Your task to perform on an android device: Turn off the flashlight Image 0: 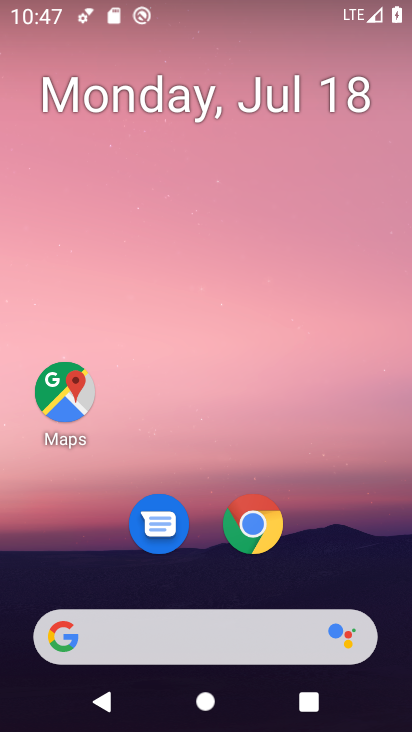
Step 0: drag from (319, 550) to (291, 41)
Your task to perform on an android device: Turn off the flashlight Image 1: 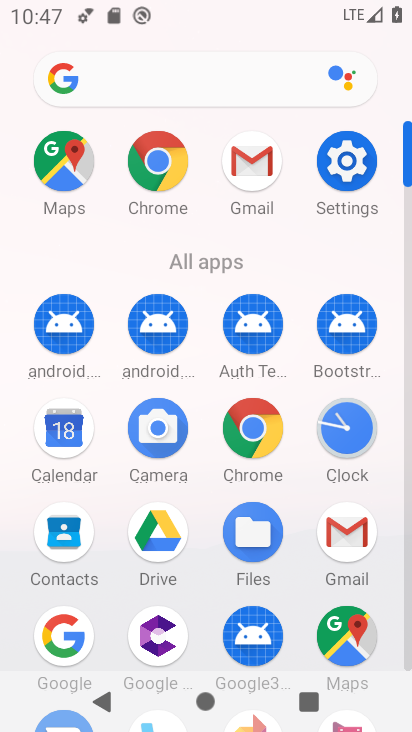
Step 1: click (332, 158)
Your task to perform on an android device: Turn off the flashlight Image 2: 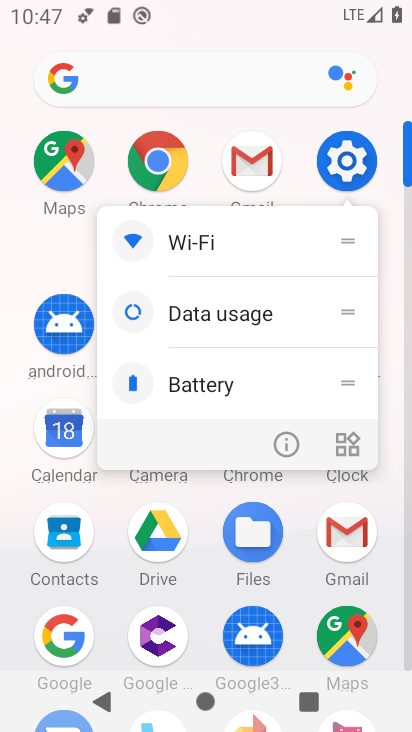
Step 2: click (248, 97)
Your task to perform on an android device: Turn off the flashlight Image 3: 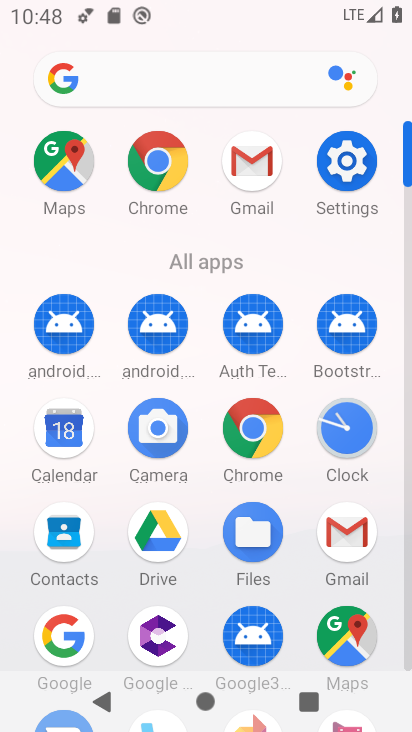
Step 3: click (226, 79)
Your task to perform on an android device: Turn off the flashlight Image 4: 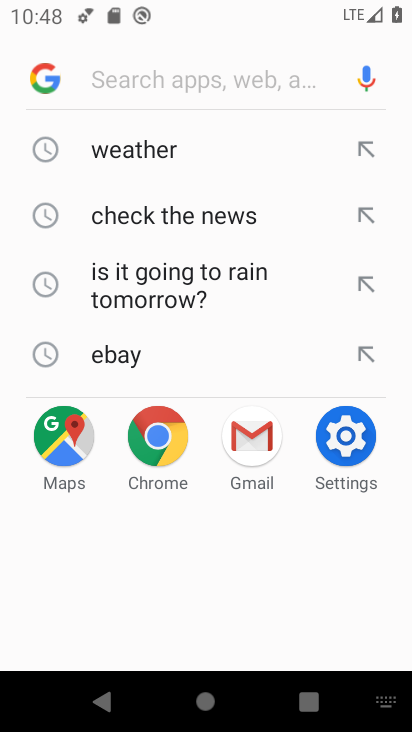
Step 4: press home button
Your task to perform on an android device: Turn off the flashlight Image 5: 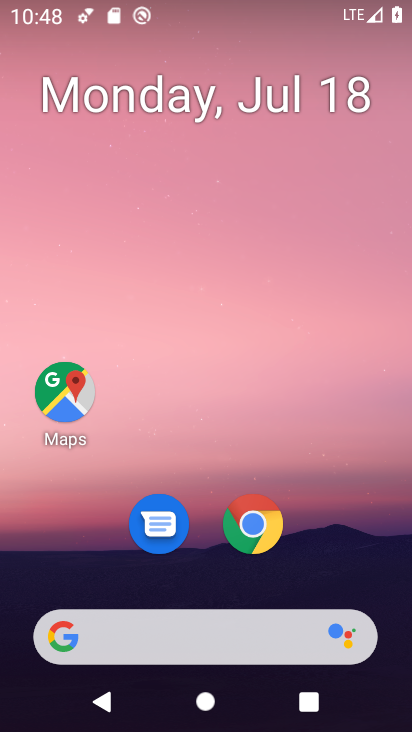
Step 5: drag from (290, 483) to (318, 64)
Your task to perform on an android device: Turn off the flashlight Image 6: 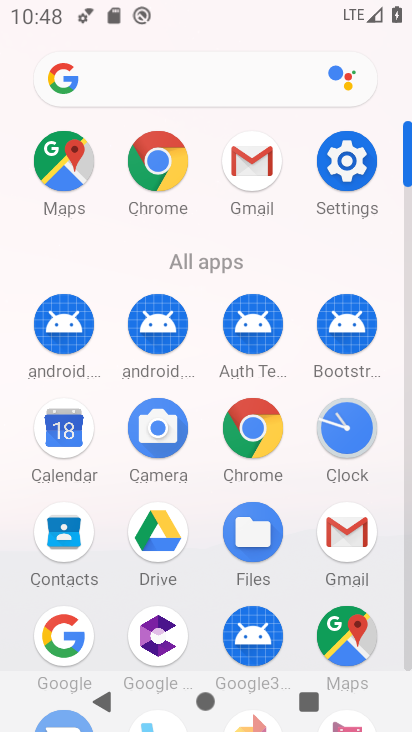
Step 6: click (347, 163)
Your task to perform on an android device: Turn off the flashlight Image 7: 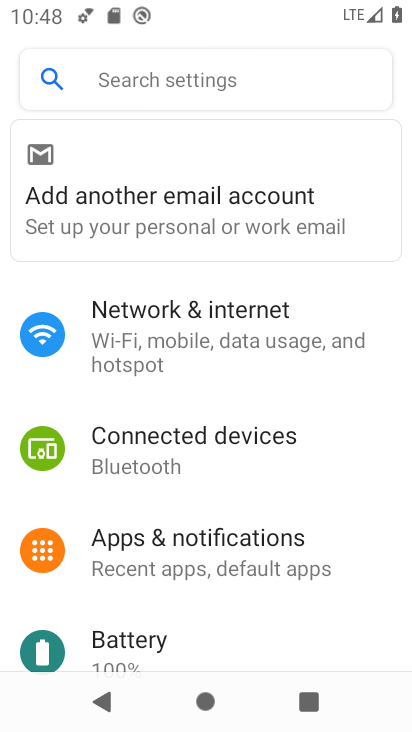
Step 7: click (257, 72)
Your task to perform on an android device: Turn off the flashlight Image 8: 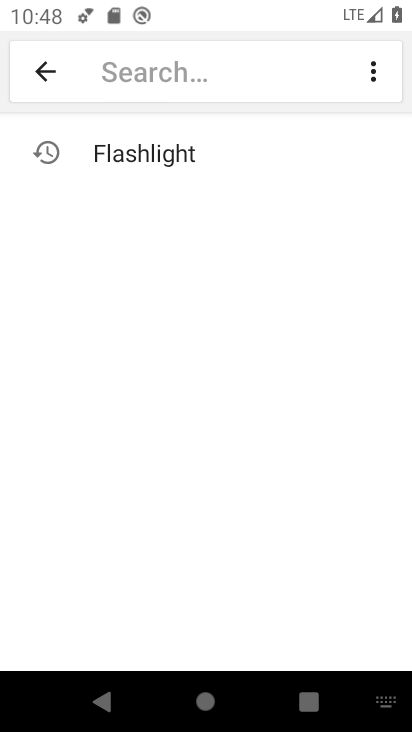
Step 8: type "Flashlight"
Your task to perform on an android device: Turn off the flashlight Image 9: 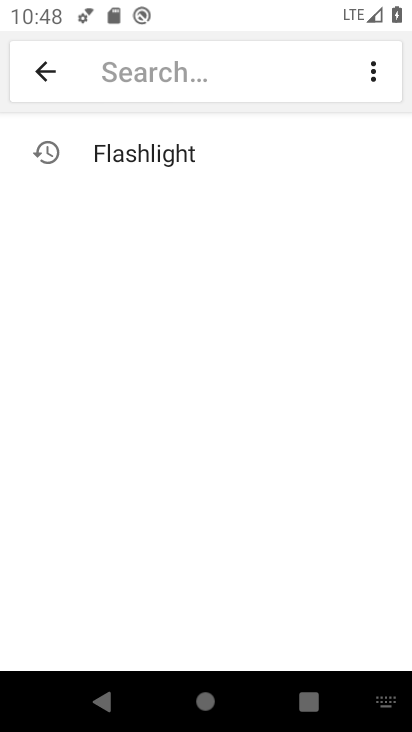
Step 9: click (177, 154)
Your task to perform on an android device: Turn off the flashlight Image 10: 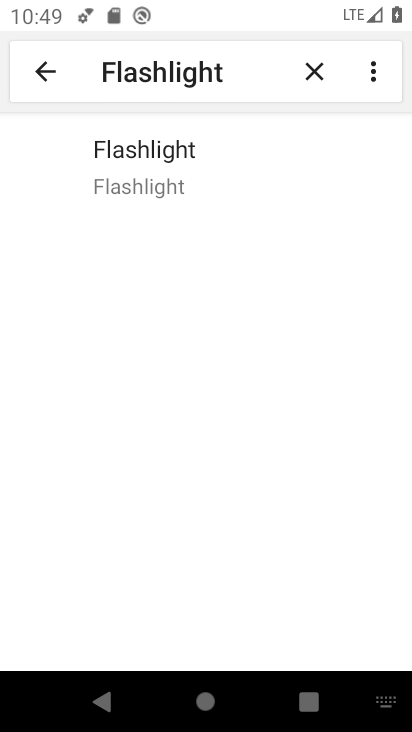
Step 10: click (143, 162)
Your task to perform on an android device: Turn off the flashlight Image 11: 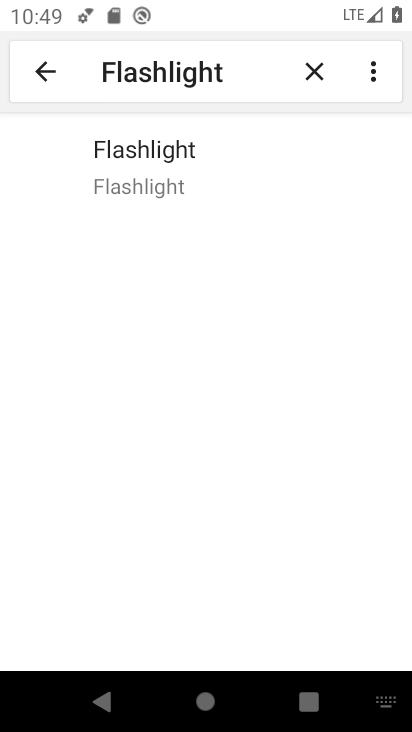
Step 11: click (143, 162)
Your task to perform on an android device: Turn off the flashlight Image 12: 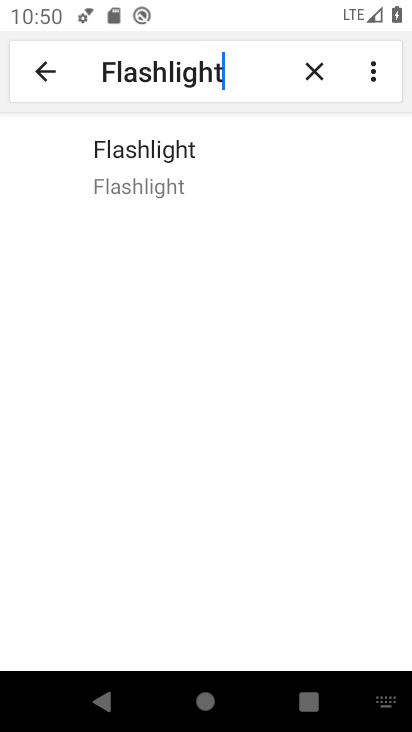
Step 12: task complete